Your task to perform on an android device: make emails show in primary in the gmail app Image 0: 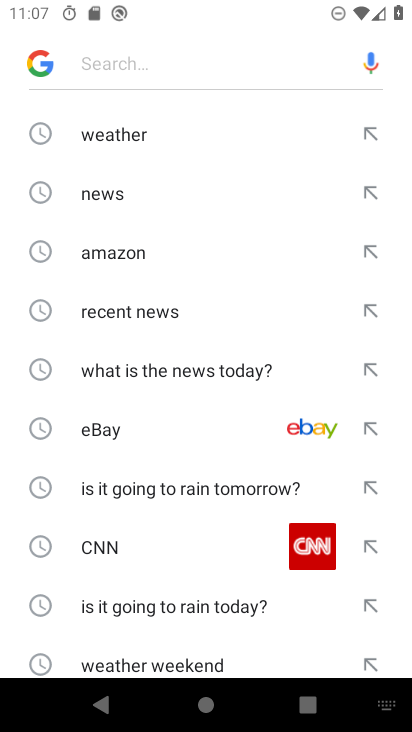
Step 0: press home button
Your task to perform on an android device: make emails show in primary in the gmail app Image 1: 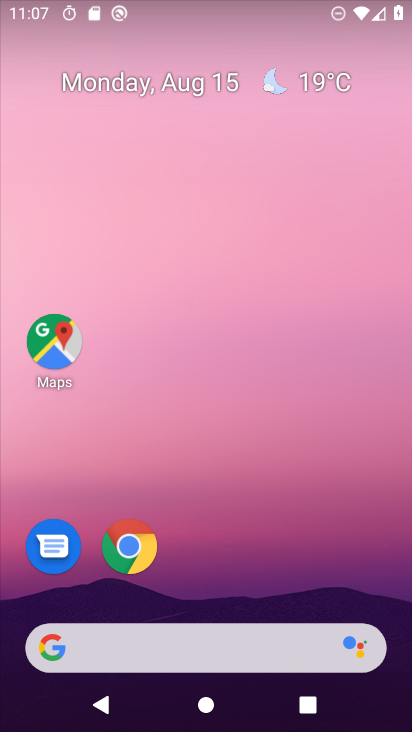
Step 1: drag from (227, 569) to (231, 85)
Your task to perform on an android device: make emails show in primary in the gmail app Image 2: 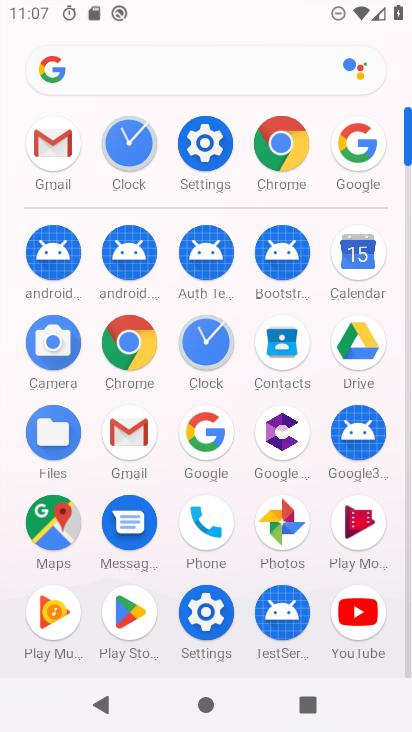
Step 2: click (123, 434)
Your task to perform on an android device: make emails show in primary in the gmail app Image 3: 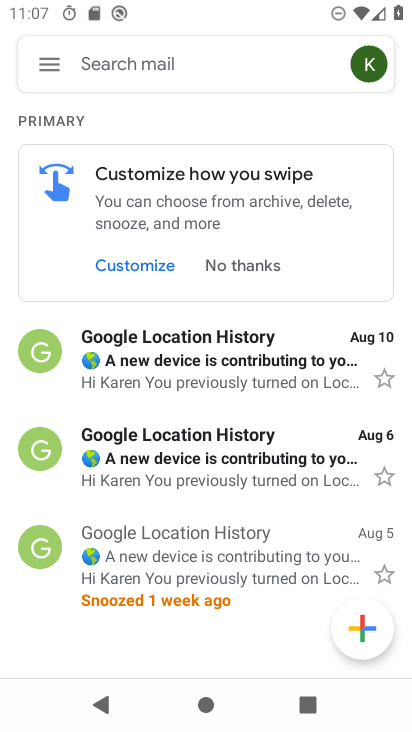
Step 3: click (50, 65)
Your task to perform on an android device: make emails show in primary in the gmail app Image 4: 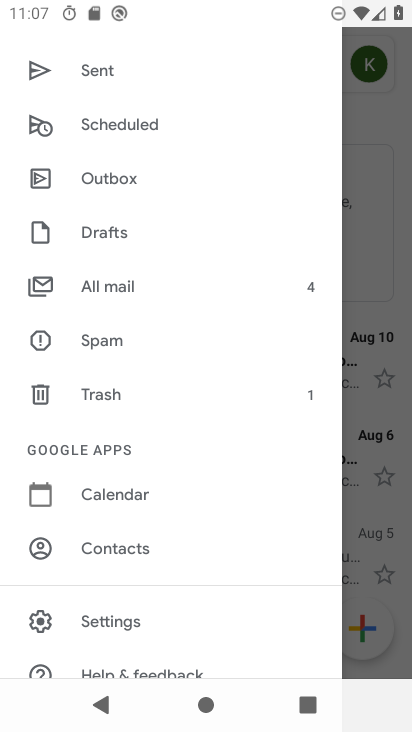
Step 4: click (119, 620)
Your task to perform on an android device: make emails show in primary in the gmail app Image 5: 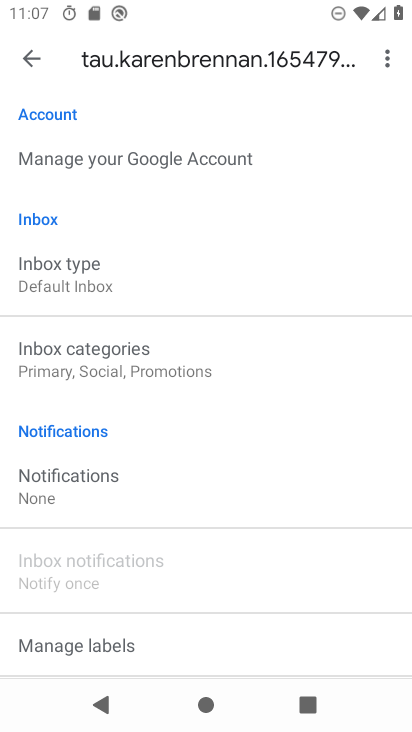
Step 5: click (58, 360)
Your task to perform on an android device: make emails show in primary in the gmail app Image 6: 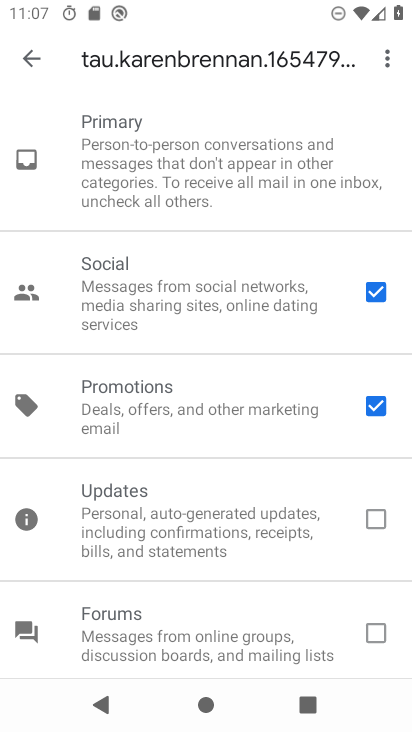
Step 6: click (367, 408)
Your task to perform on an android device: make emails show in primary in the gmail app Image 7: 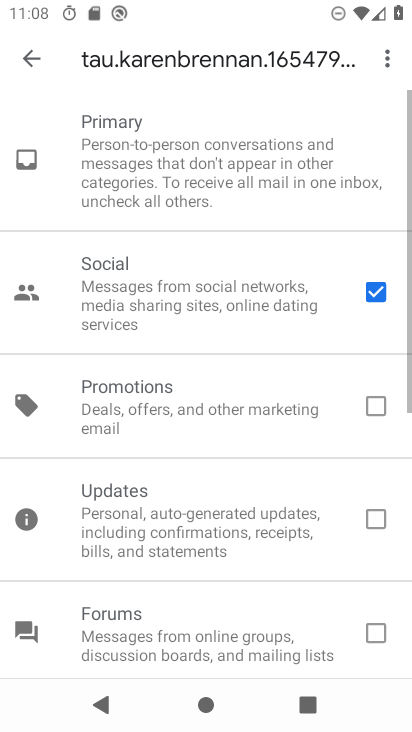
Step 7: click (382, 287)
Your task to perform on an android device: make emails show in primary in the gmail app Image 8: 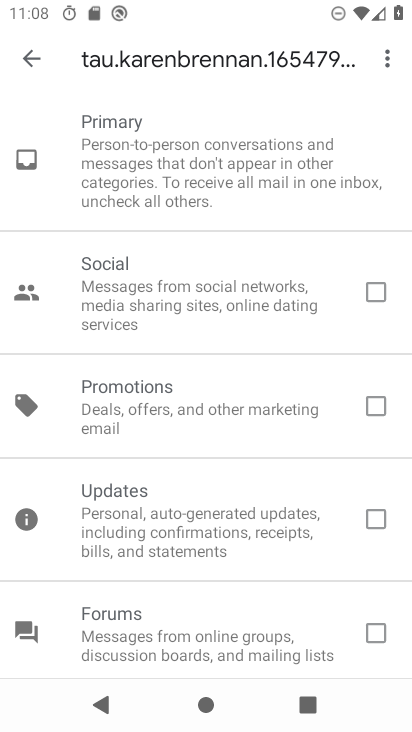
Step 8: click (29, 60)
Your task to perform on an android device: make emails show in primary in the gmail app Image 9: 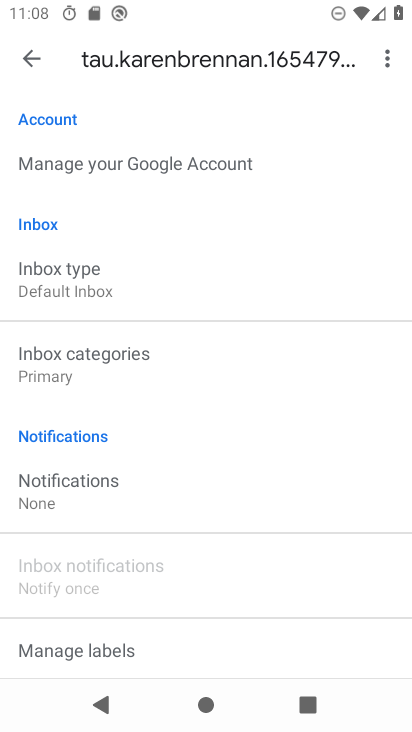
Step 9: task complete